Your task to perform on an android device: add a contact in the contacts app Image 0: 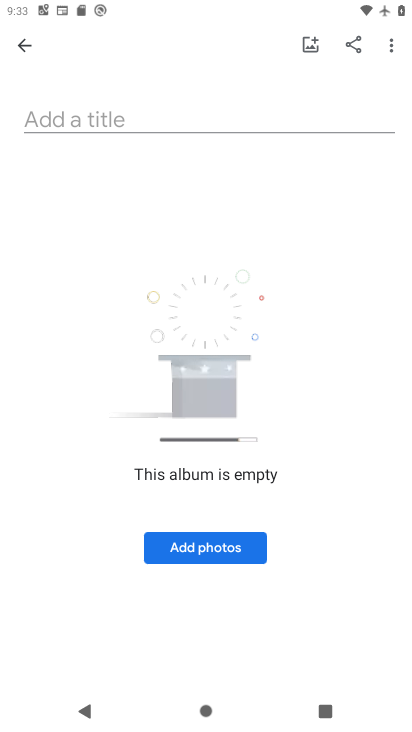
Step 0: press home button
Your task to perform on an android device: add a contact in the contacts app Image 1: 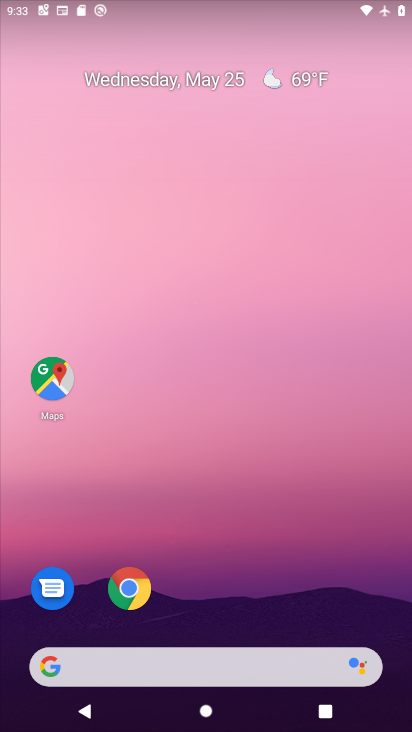
Step 1: drag from (379, 630) to (384, 247)
Your task to perform on an android device: add a contact in the contacts app Image 2: 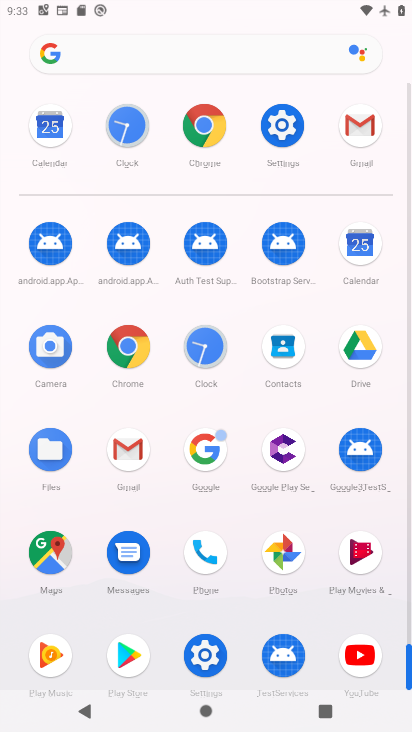
Step 2: click (287, 357)
Your task to perform on an android device: add a contact in the contacts app Image 3: 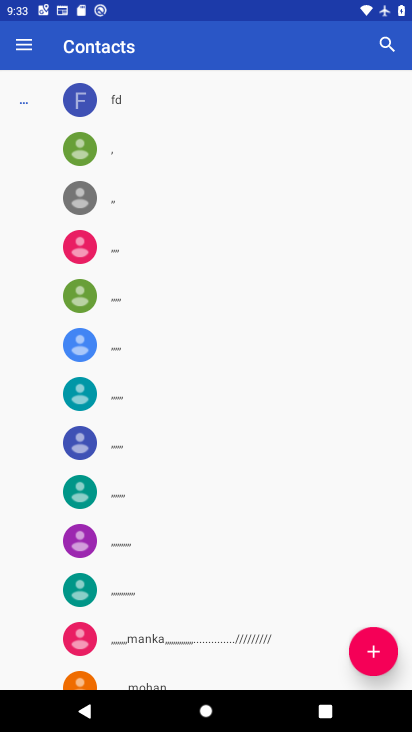
Step 3: click (381, 650)
Your task to perform on an android device: add a contact in the contacts app Image 4: 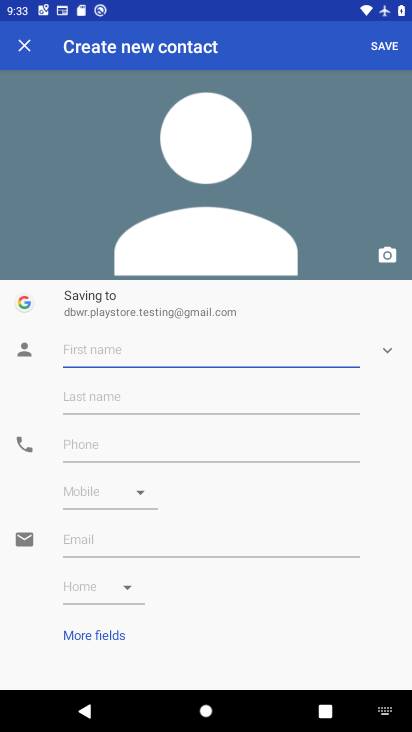
Step 4: click (297, 355)
Your task to perform on an android device: add a contact in the contacts app Image 5: 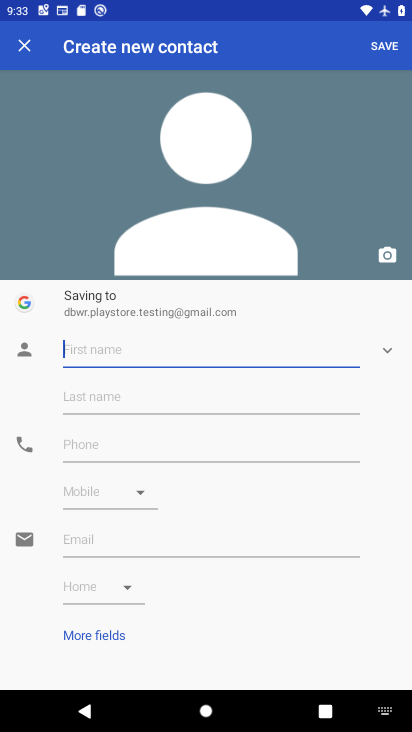
Step 5: type "nnnnn"
Your task to perform on an android device: add a contact in the contacts app Image 6: 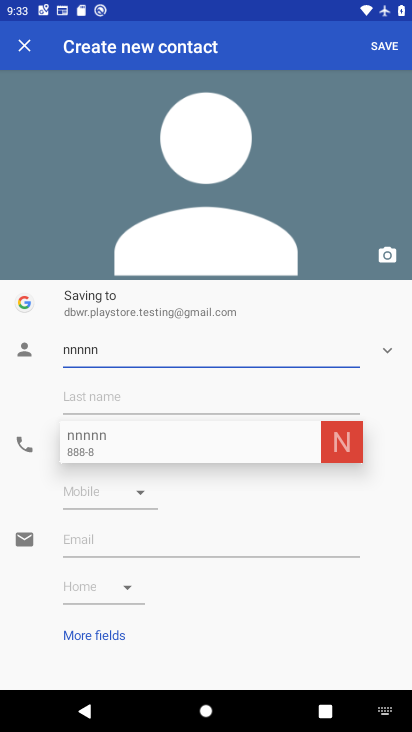
Step 6: click (411, 468)
Your task to perform on an android device: add a contact in the contacts app Image 7: 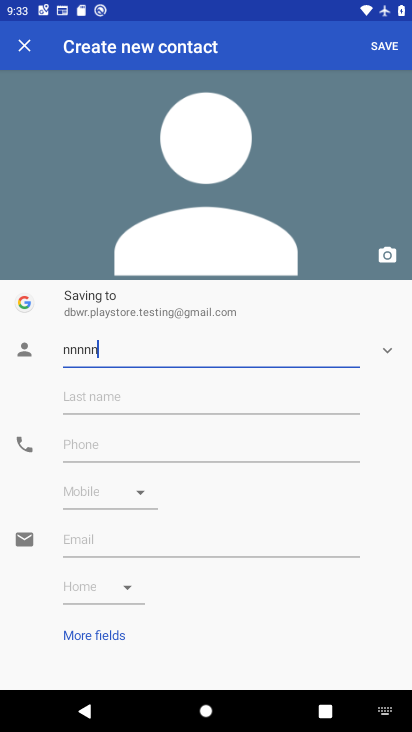
Step 7: click (200, 443)
Your task to perform on an android device: add a contact in the contacts app Image 8: 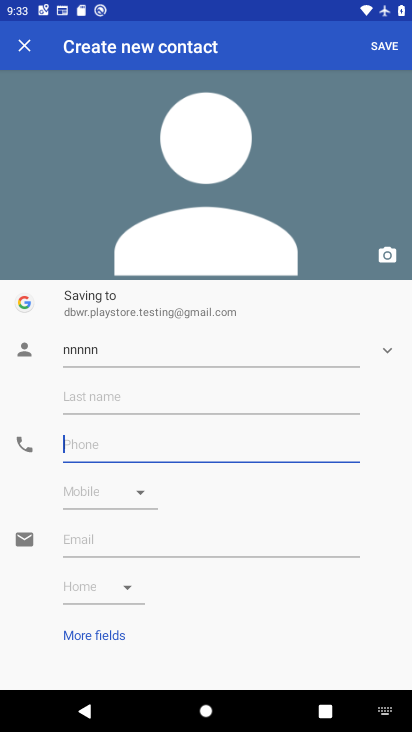
Step 8: type "123456789"
Your task to perform on an android device: add a contact in the contacts app Image 9: 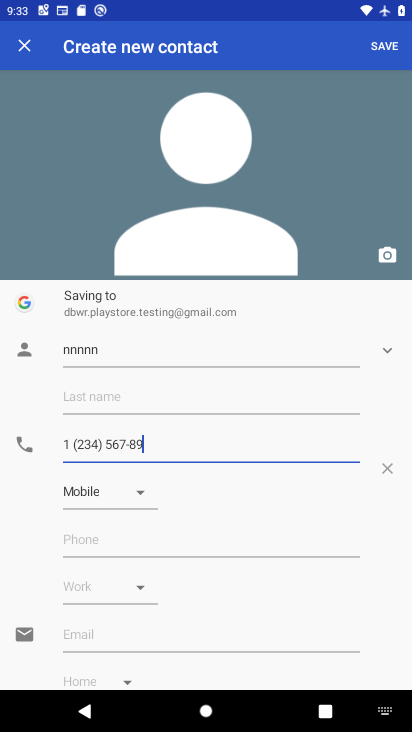
Step 9: click (383, 53)
Your task to perform on an android device: add a contact in the contacts app Image 10: 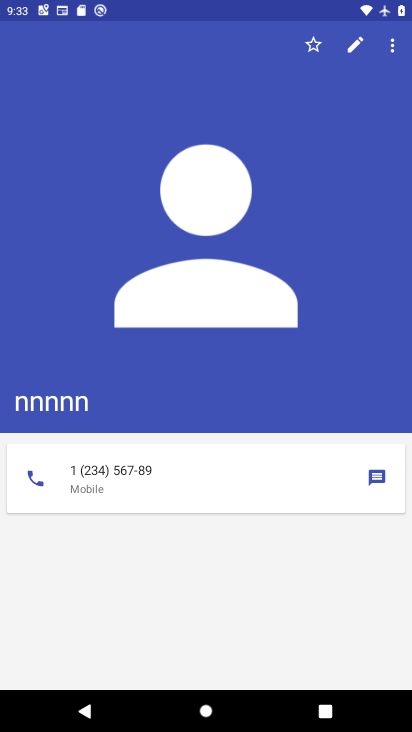
Step 10: task complete